Your task to perform on an android device: Open notification settings Image 0: 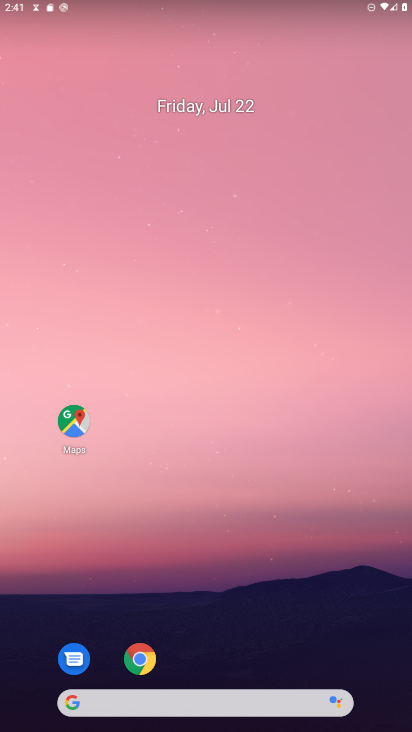
Step 0: drag from (223, 664) to (293, 35)
Your task to perform on an android device: Open notification settings Image 1: 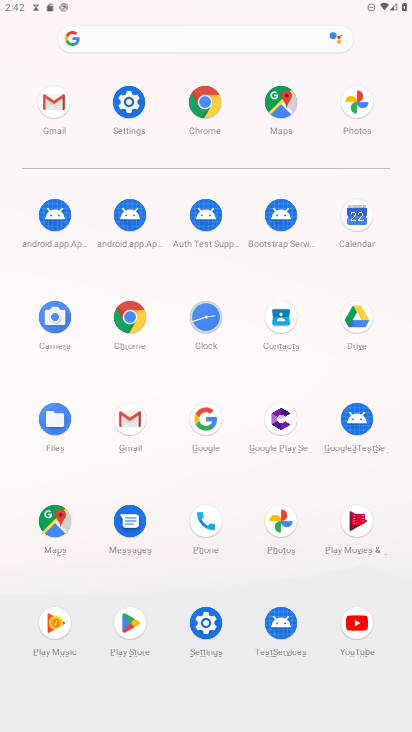
Step 1: click (121, 102)
Your task to perform on an android device: Open notification settings Image 2: 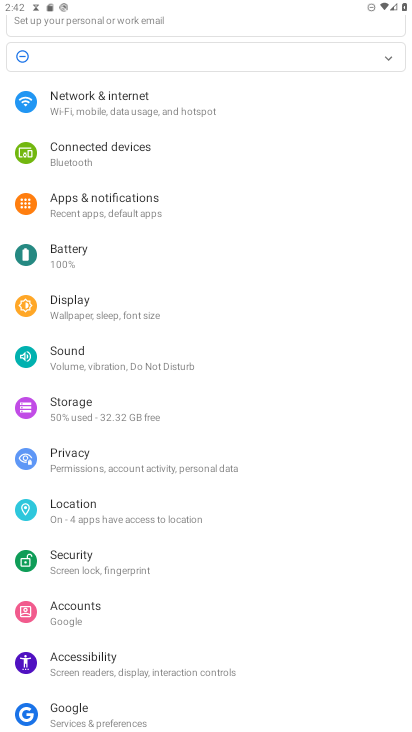
Step 2: click (119, 199)
Your task to perform on an android device: Open notification settings Image 3: 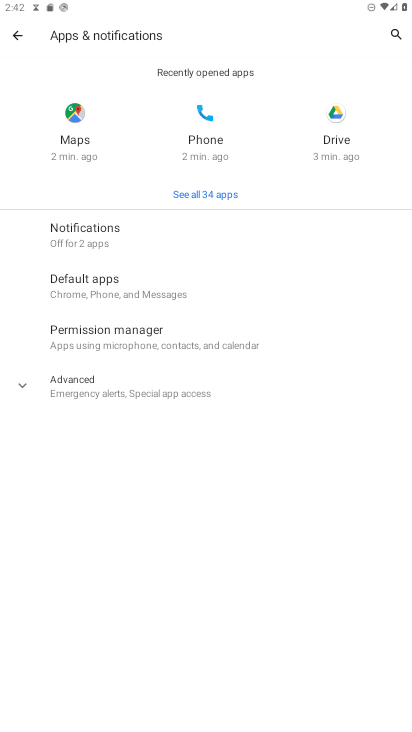
Step 3: click (106, 232)
Your task to perform on an android device: Open notification settings Image 4: 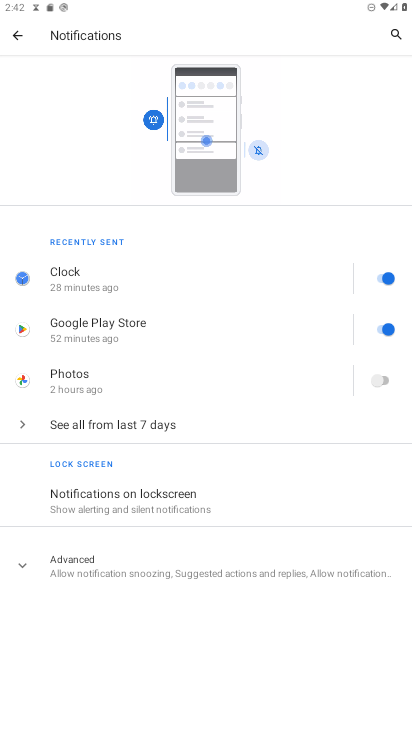
Step 4: task complete